Your task to perform on an android device: Turn off the flashlight Image 0: 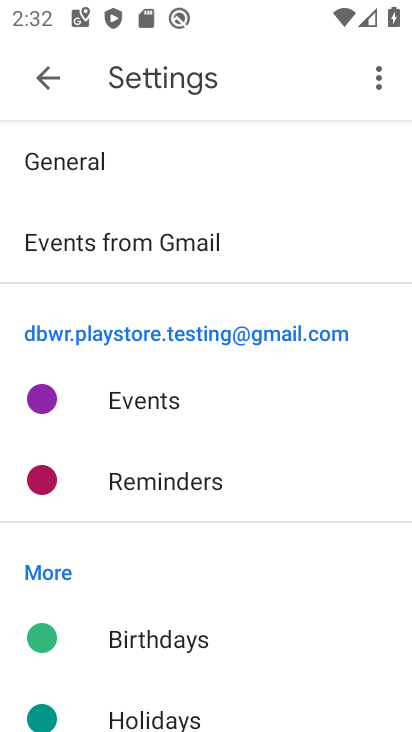
Step 0: press home button
Your task to perform on an android device: Turn off the flashlight Image 1: 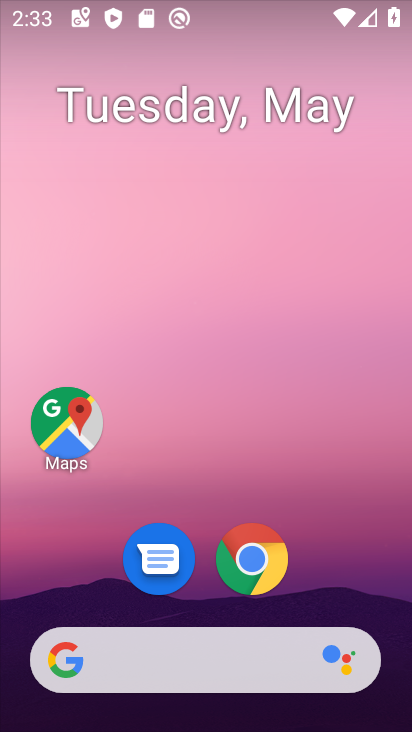
Step 1: task complete